Your task to perform on an android device: visit the assistant section in the google photos Image 0: 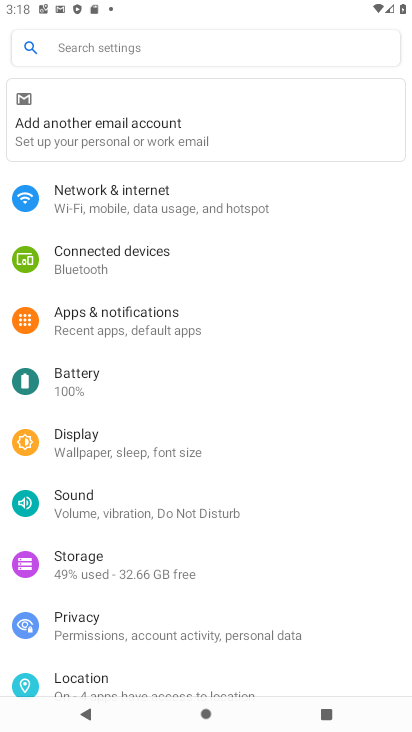
Step 0: press home button
Your task to perform on an android device: visit the assistant section in the google photos Image 1: 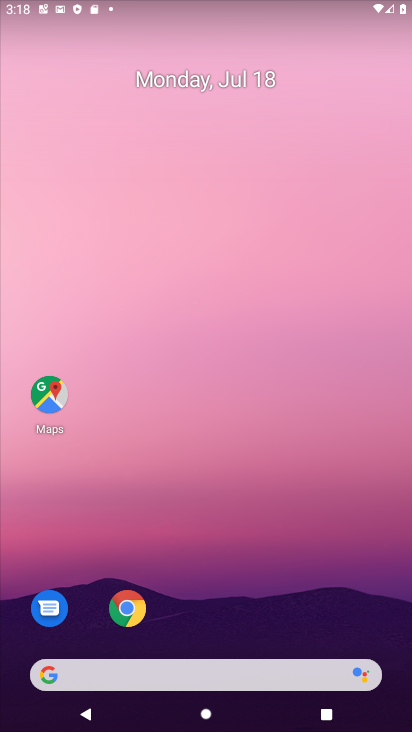
Step 1: drag from (235, 552) to (248, 259)
Your task to perform on an android device: visit the assistant section in the google photos Image 2: 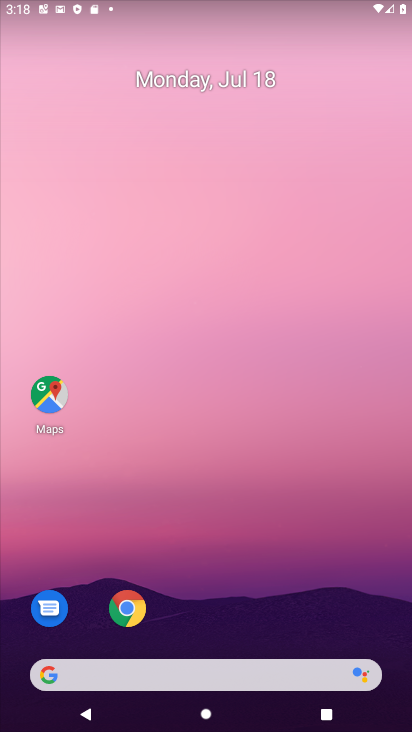
Step 2: drag from (227, 705) to (331, 38)
Your task to perform on an android device: visit the assistant section in the google photos Image 3: 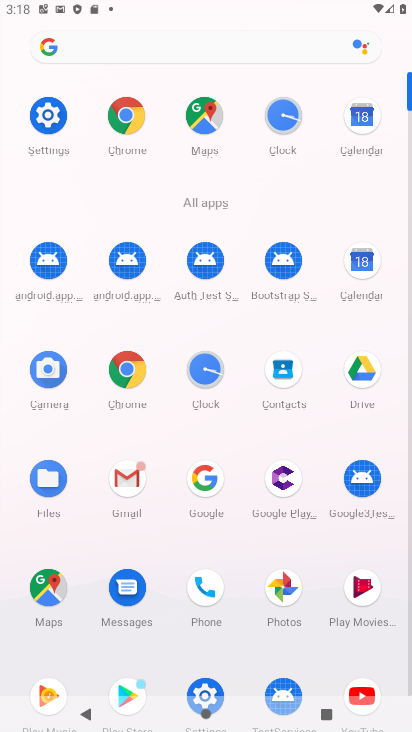
Step 3: click (273, 579)
Your task to perform on an android device: visit the assistant section in the google photos Image 4: 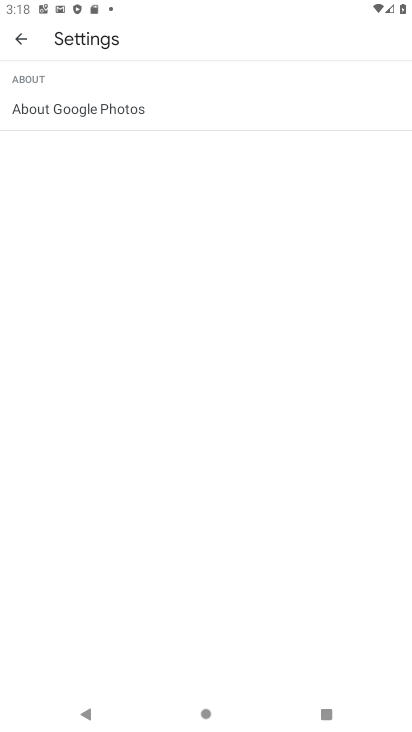
Step 4: press home button
Your task to perform on an android device: visit the assistant section in the google photos Image 5: 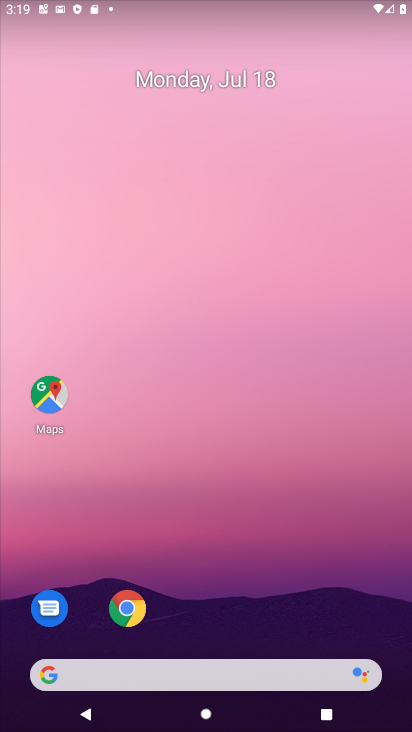
Step 5: drag from (259, 653) to (271, 151)
Your task to perform on an android device: visit the assistant section in the google photos Image 6: 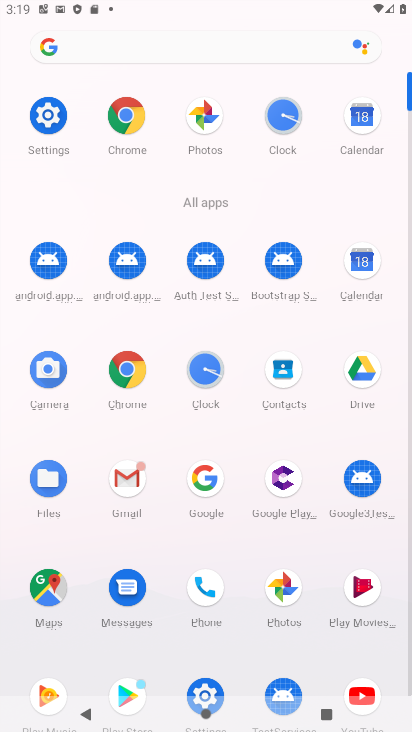
Step 6: click (293, 587)
Your task to perform on an android device: visit the assistant section in the google photos Image 7: 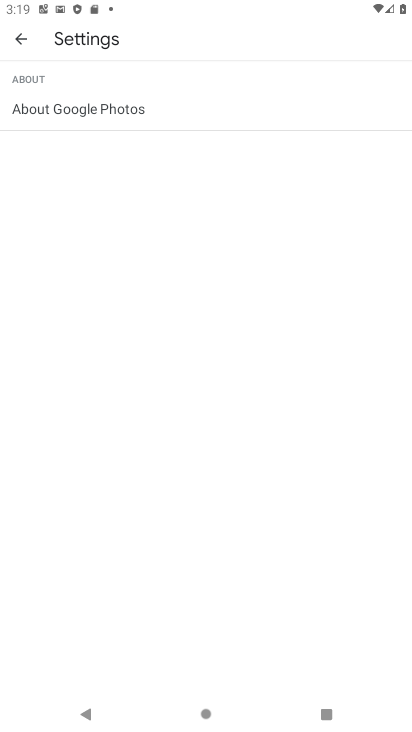
Step 7: click (20, 38)
Your task to perform on an android device: visit the assistant section in the google photos Image 8: 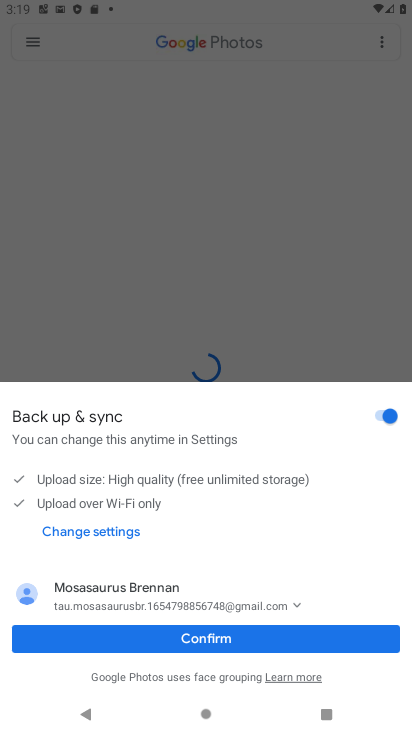
Step 8: drag from (271, 680) to (290, 721)
Your task to perform on an android device: visit the assistant section in the google photos Image 9: 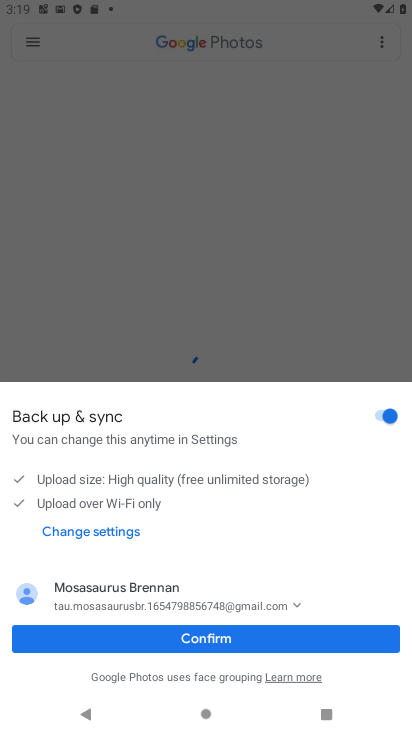
Step 9: click (255, 645)
Your task to perform on an android device: visit the assistant section in the google photos Image 10: 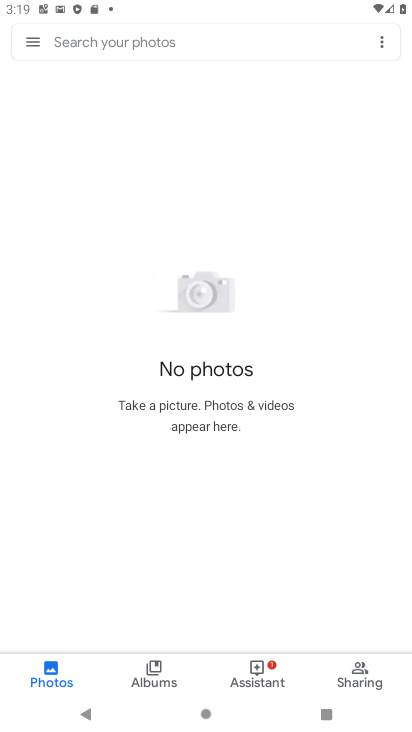
Step 10: click (265, 665)
Your task to perform on an android device: visit the assistant section in the google photos Image 11: 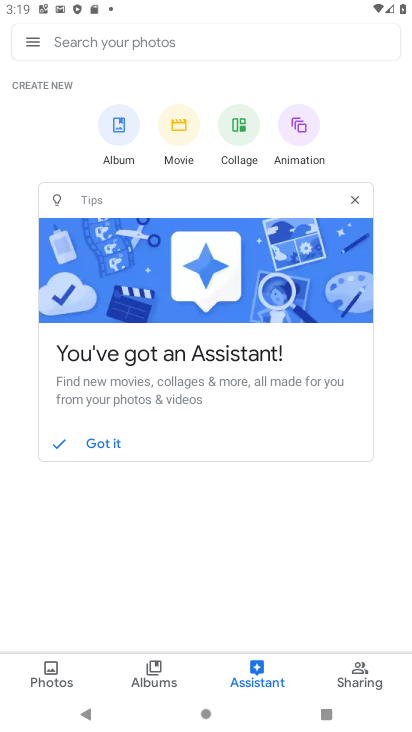
Step 11: task complete